Your task to perform on an android device: check the backup settings in the google photos Image 0: 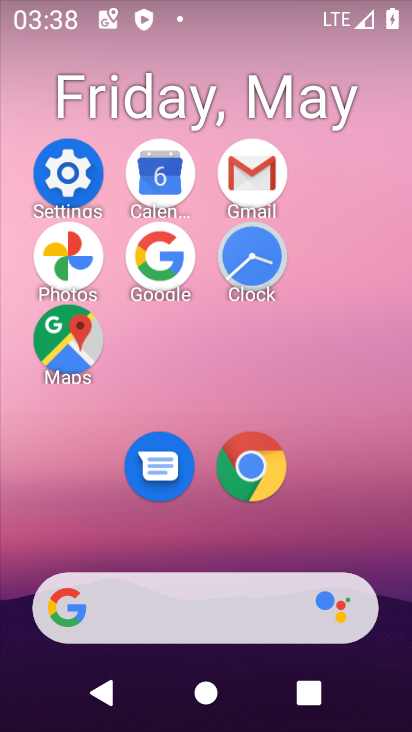
Step 0: click (88, 252)
Your task to perform on an android device: check the backup settings in the google photos Image 1: 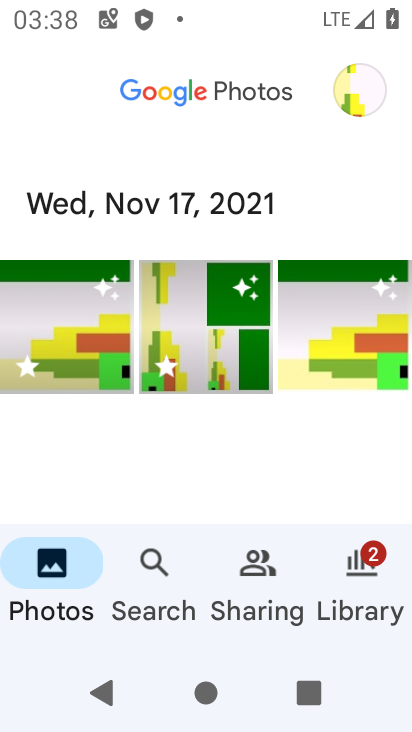
Step 1: click (366, 103)
Your task to perform on an android device: check the backup settings in the google photos Image 2: 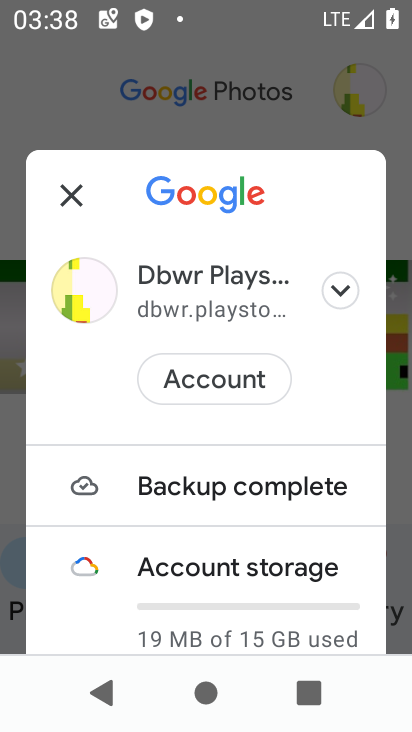
Step 2: drag from (244, 549) to (230, 229)
Your task to perform on an android device: check the backup settings in the google photos Image 3: 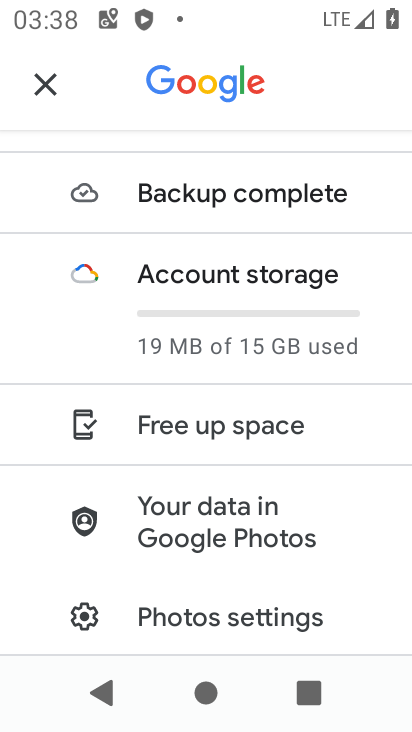
Step 3: drag from (216, 498) to (216, 163)
Your task to perform on an android device: check the backup settings in the google photos Image 4: 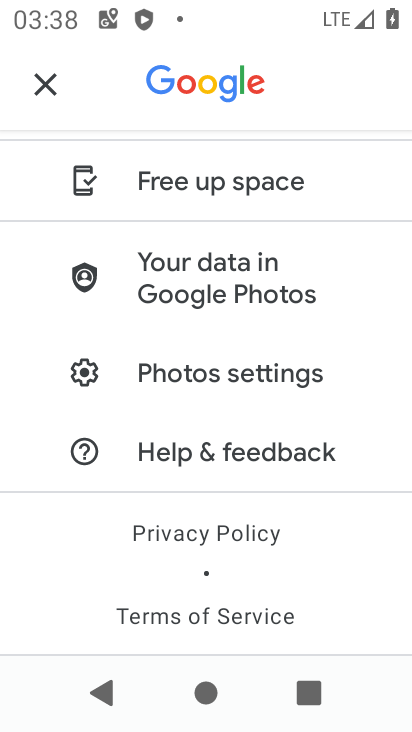
Step 4: click (223, 380)
Your task to perform on an android device: check the backup settings in the google photos Image 5: 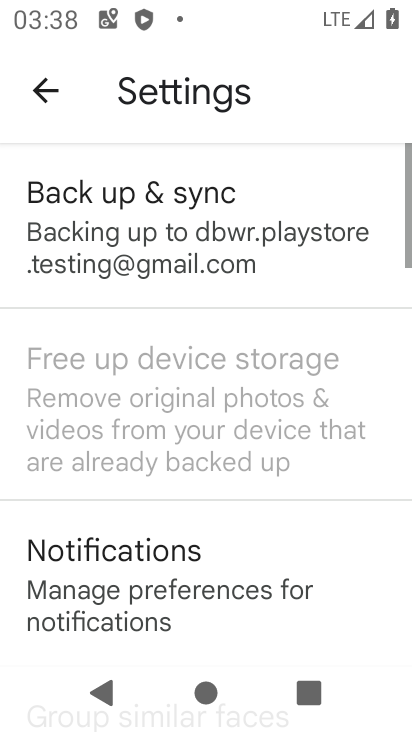
Step 5: click (209, 252)
Your task to perform on an android device: check the backup settings in the google photos Image 6: 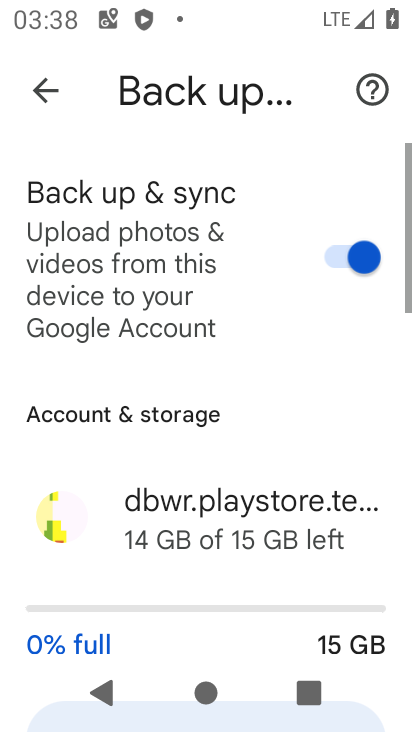
Step 6: task complete